Your task to perform on an android device: change alarm snooze length Image 0: 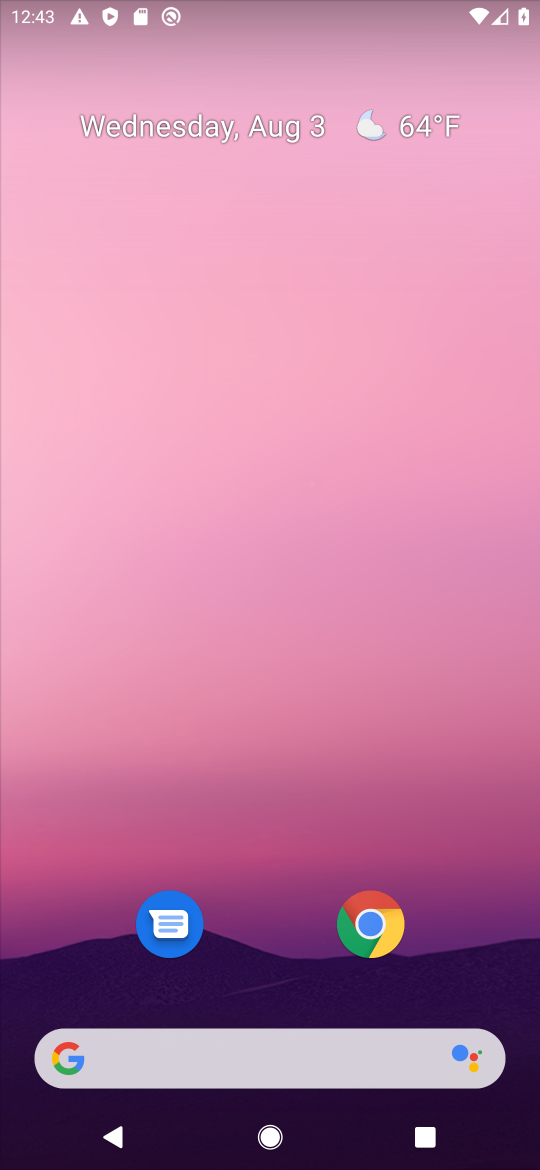
Step 0: drag from (305, 797) to (374, 20)
Your task to perform on an android device: change alarm snooze length Image 1: 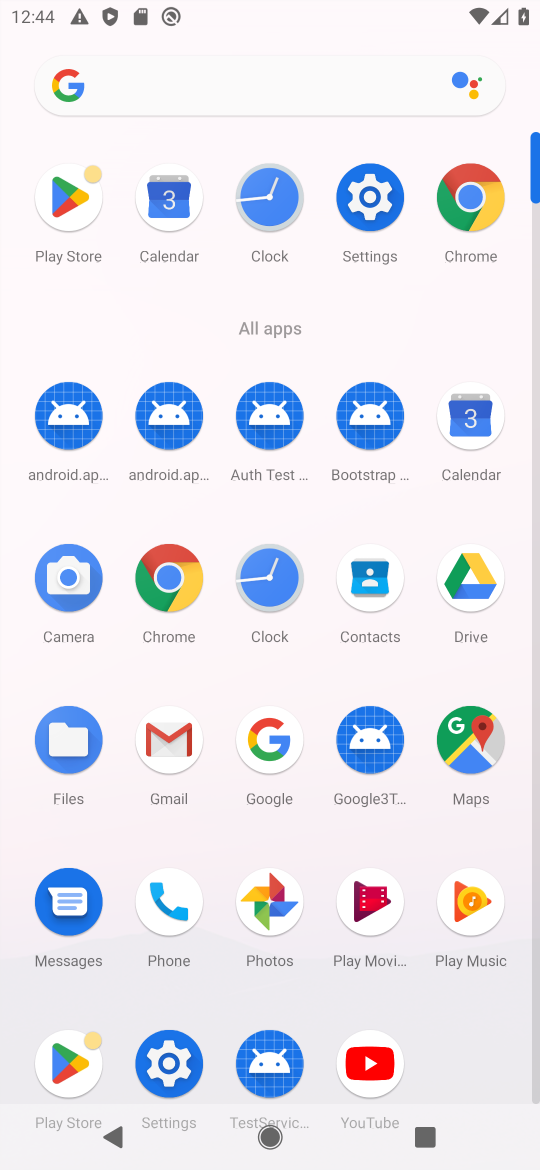
Step 1: click (272, 579)
Your task to perform on an android device: change alarm snooze length Image 2: 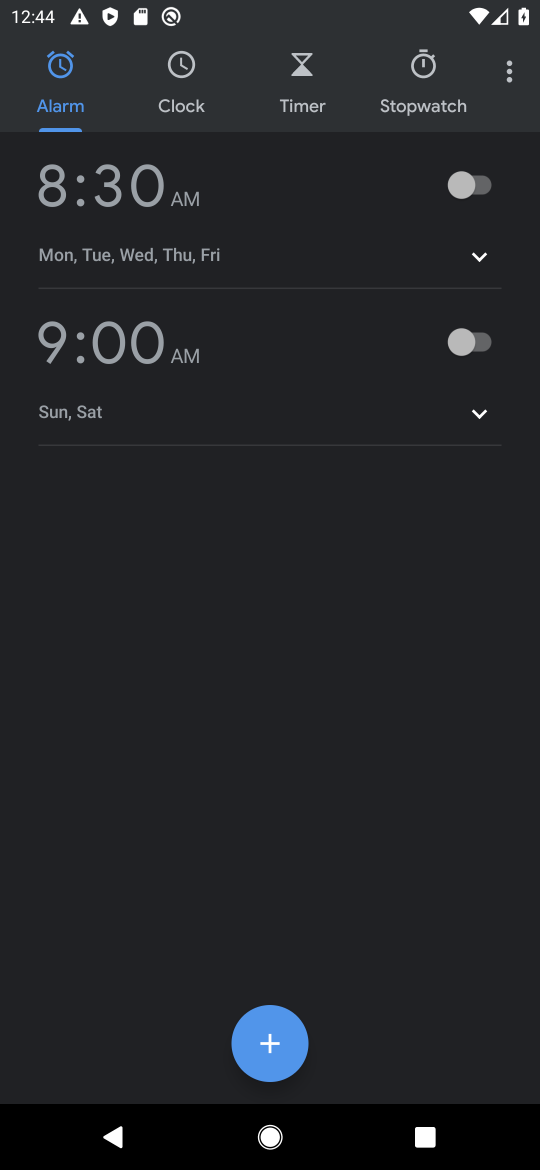
Step 2: click (512, 59)
Your task to perform on an android device: change alarm snooze length Image 3: 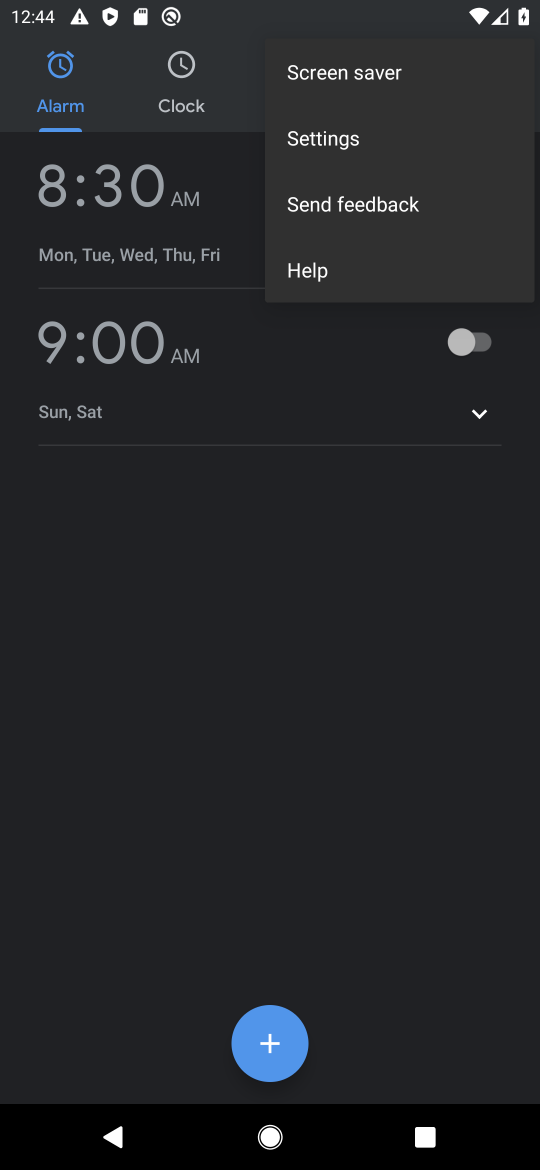
Step 3: click (286, 136)
Your task to perform on an android device: change alarm snooze length Image 4: 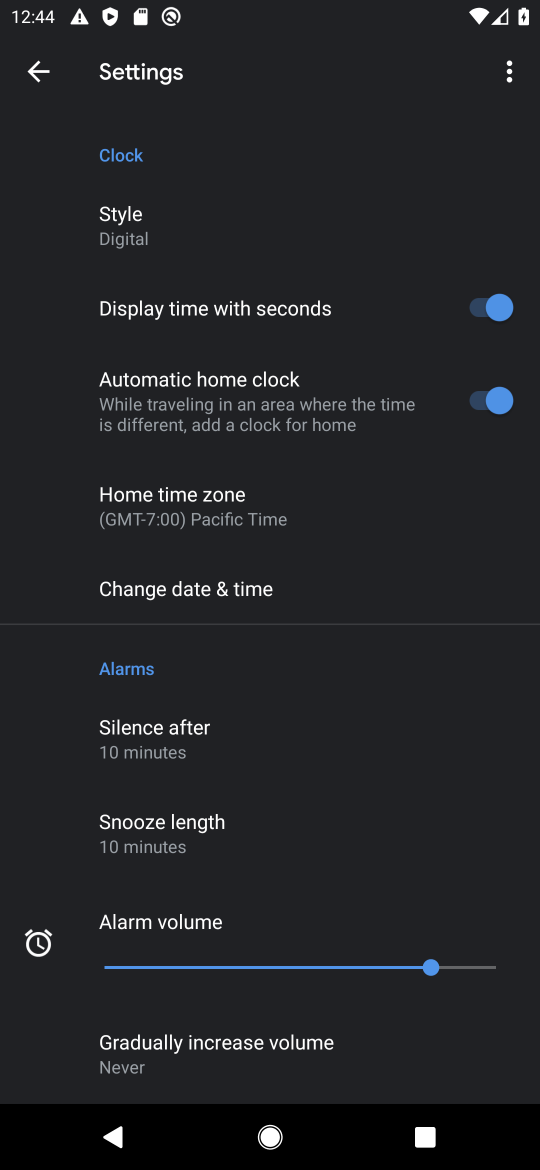
Step 4: click (160, 824)
Your task to perform on an android device: change alarm snooze length Image 5: 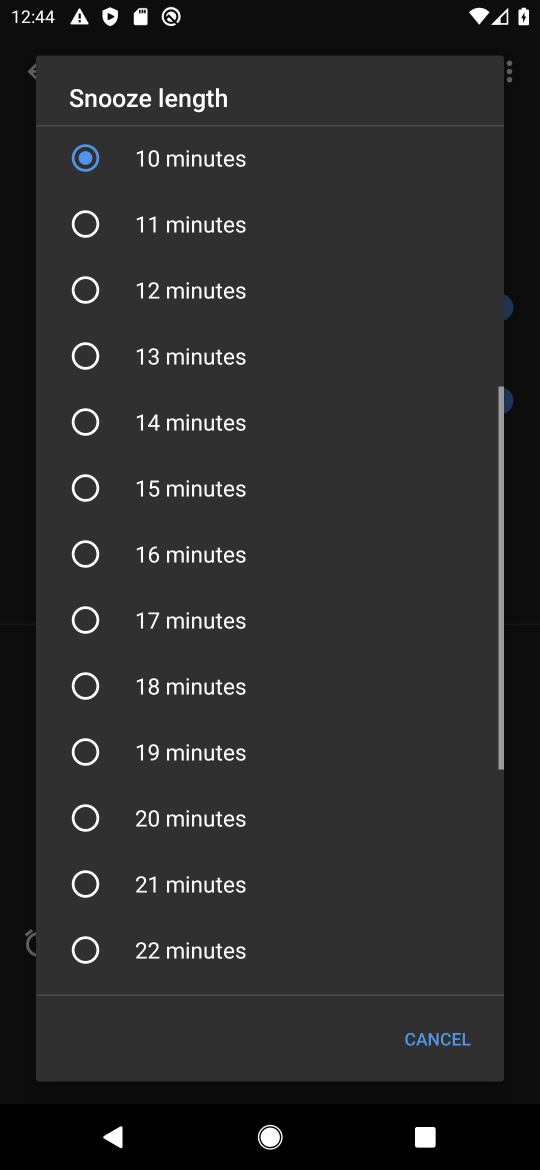
Step 5: click (100, 210)
Your task to perform on an android device: change alarm snooze length Image 6: 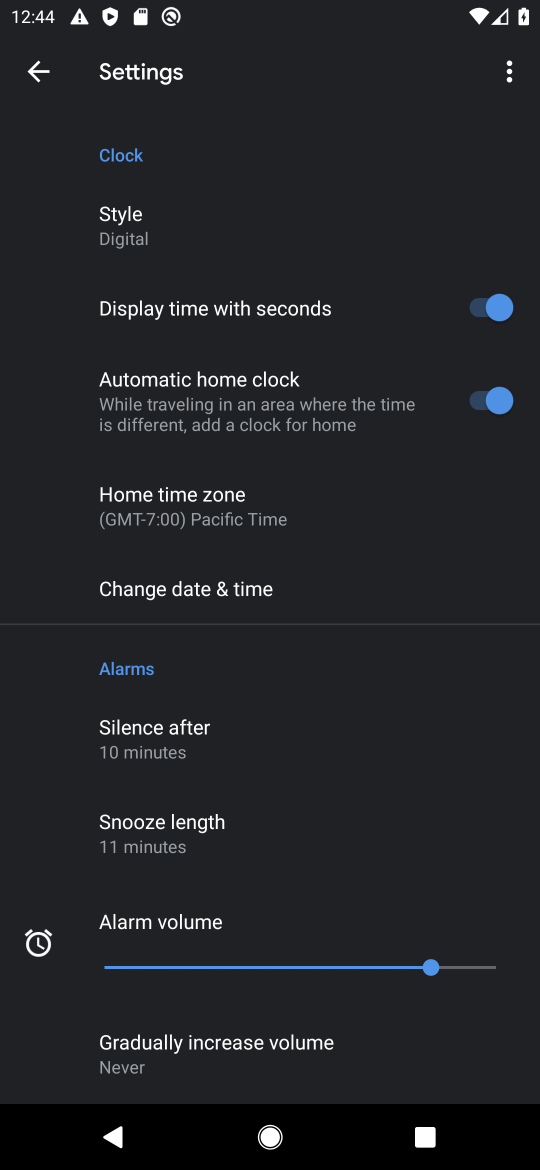
Step 6: task complete